Your task to perform on an android device: Open notification settings Image 0: 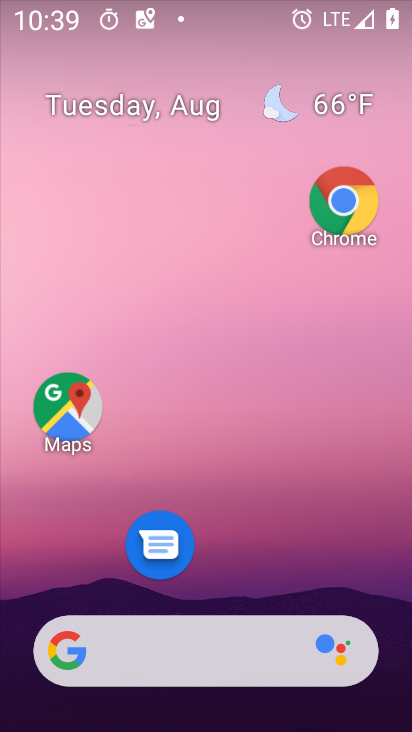
Step 0: drag from (202, 516) to (269, 12)
Your task to perform on an android device: Open notification settings Image 1: 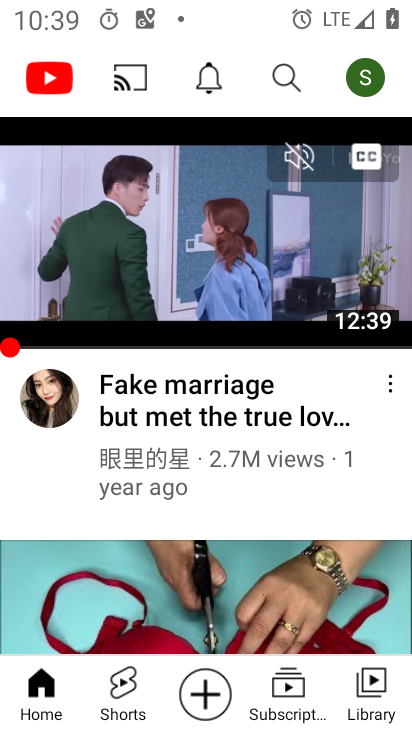
Step 1: press home button
Your task to perform on an android device: Open notification settings Image 2: 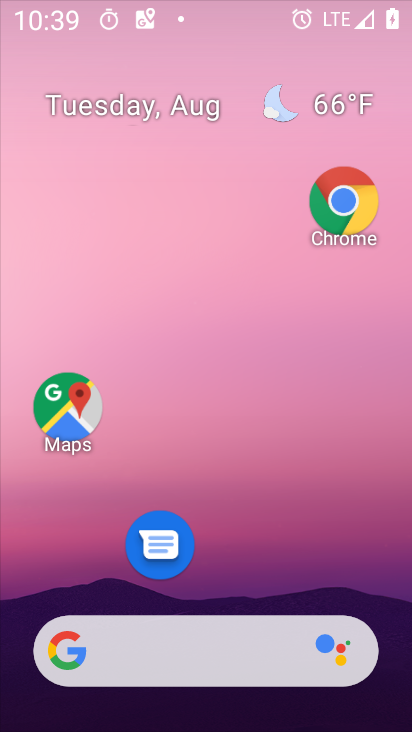
Step 2: drag from (211, 666) to (183, 0)
Your task to perform on an android device: Open notification settings Image 3: 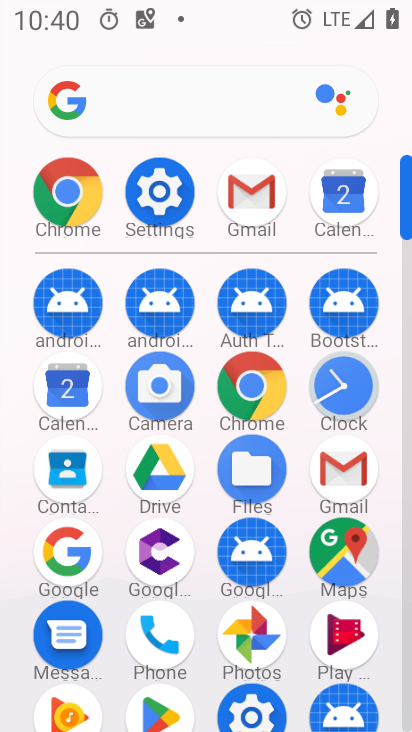
Step 3: click (152, 202)
Your task to perform on an android device: Open notification settings Image 4: 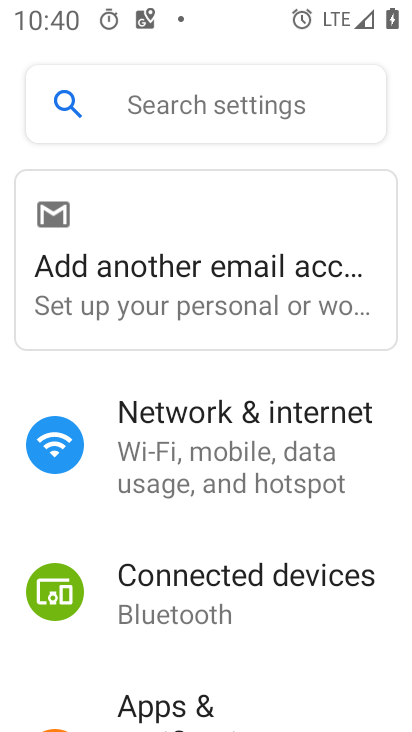
Step 4: drag from (234, 596) to (302, 178)
Your task to perform on an android device: Open notification settings Image 5: 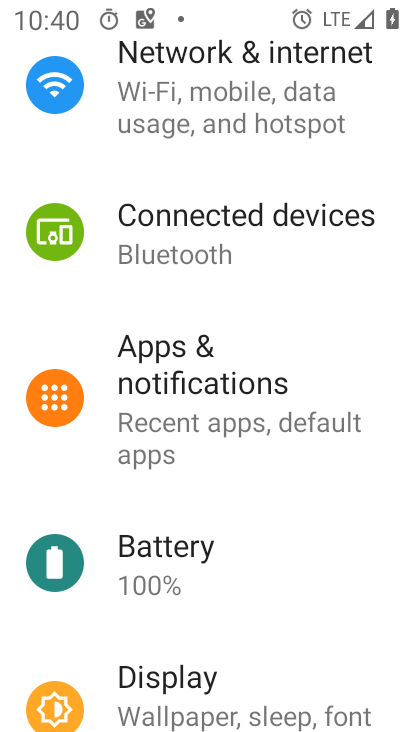
Step 5: click (214, 398)
Your task to perform on an android device: Open notification settings Image 6: 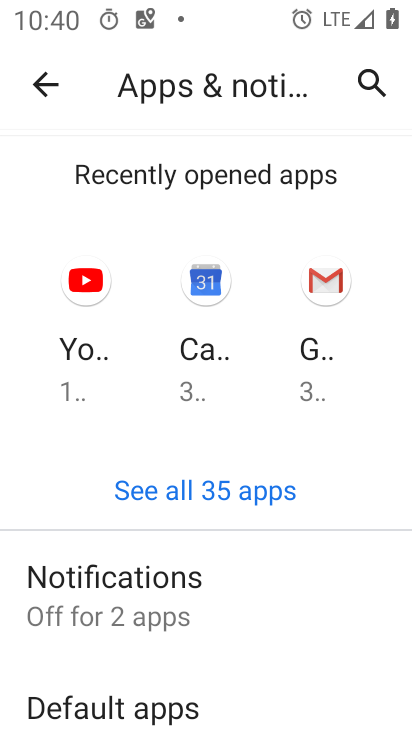
Step 6: click (204, 590)
Your task to perform on an android device: Open notification settings Image 7: 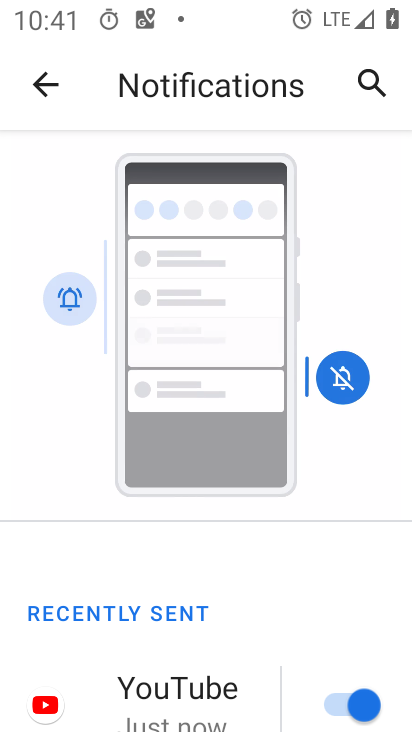
Step 7: task complete